Your task to perform on an android device: change notification settings in the gmail app Image 0: 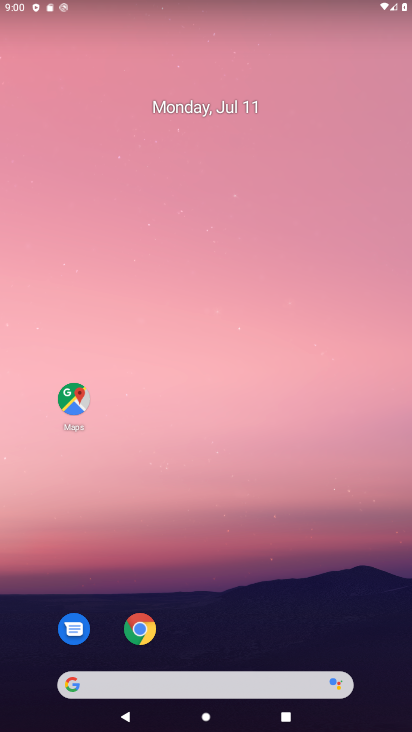
Step 0: drag from (36, 696) to (403, 257)
Your task to perform on an android device: change notification settings in the gmail app Image 1: 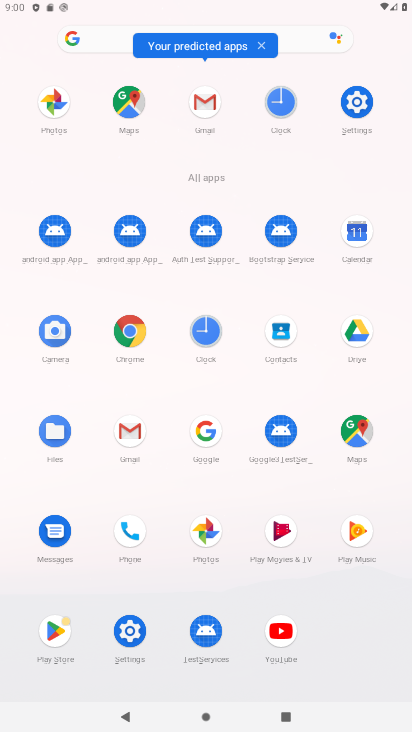
Step 1: click (201, 99)
Your task to perform on an android device: change notification settings in the gmail app Image 2: 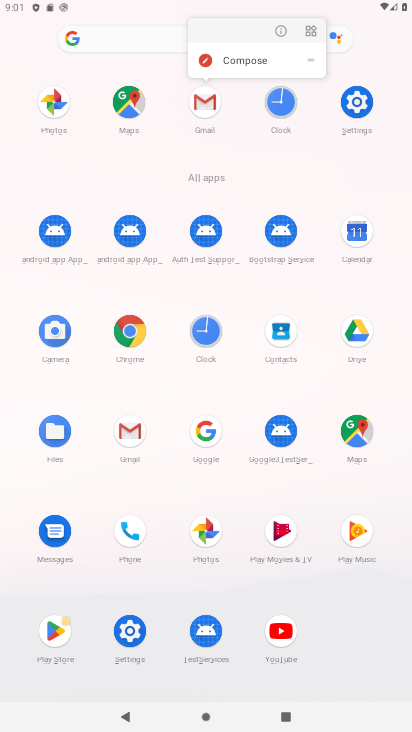
Step 2: click (196, 113)
Your task to perform on an android device: change notification settings in the gmail app Image 3: 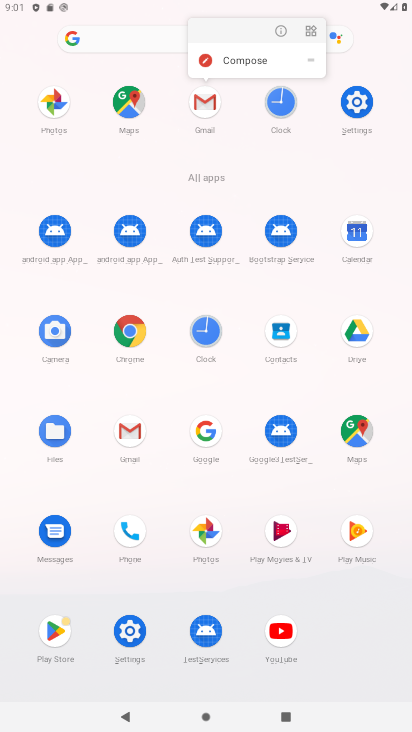
Step 3: click (208, 101)
Your task to perform on an android device: change notification settings in the gmail app Image 4: 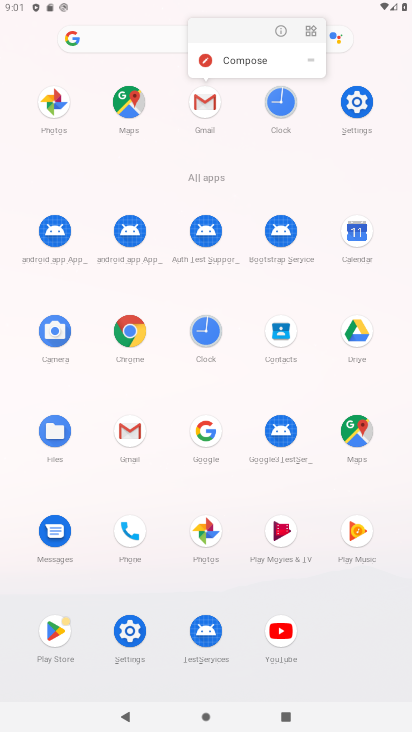
Step 4: task complete